Your task to perform on an android device: What's on my calendar tomorrow? Image 0: 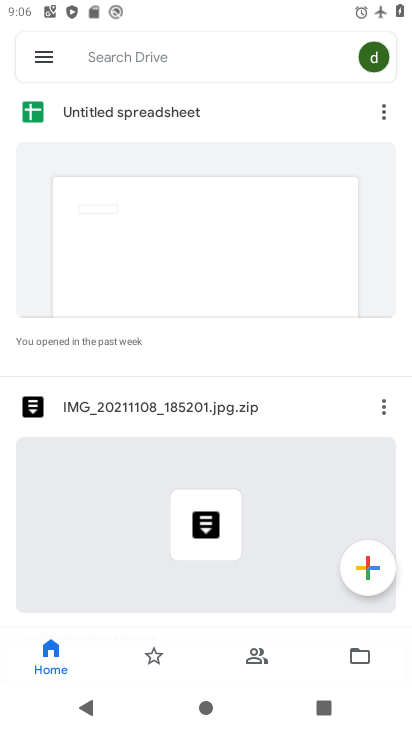
Step 0: press home button
Your task to perform on an android device: What's on my calendar tomorrow? Image 1: 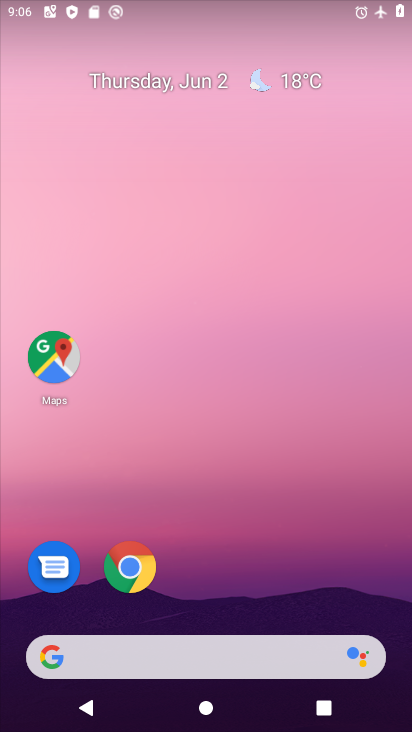
Step 1: drag from (212, 571) to (243, 6)
Your task to perform on an android device: What's on my calendar tomorrow? Image 2: 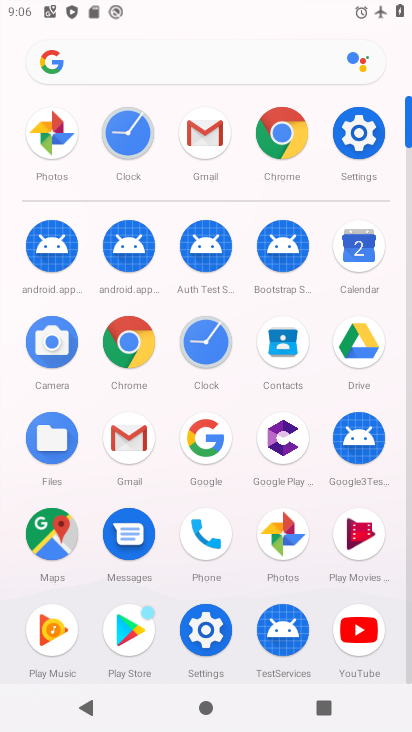
Step 2: click (355, 273)
Your task to perform on an android device: What's on my calendar tomorrow? Image 3: 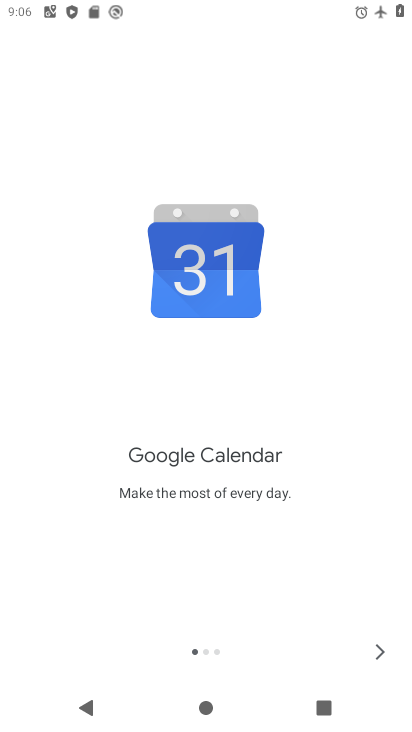
Step 3: click (374, 649)
Your task to perform on an android device: What's on my calendar tomorrow? Image 4: 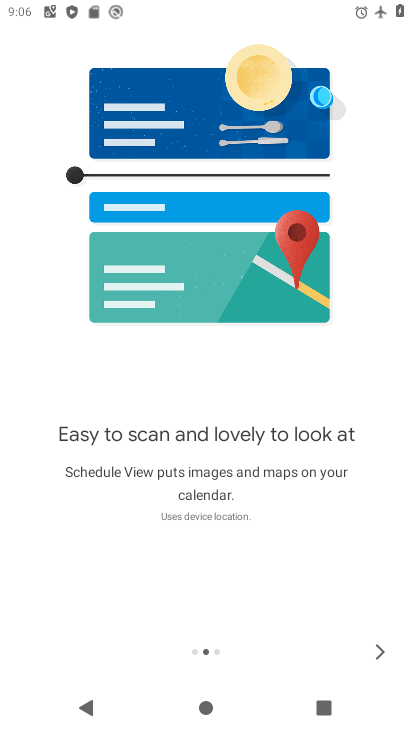
Step 4: click (373, 647)
Your task to perform on an android device: What's on my calendar tomorrow? Image 5: 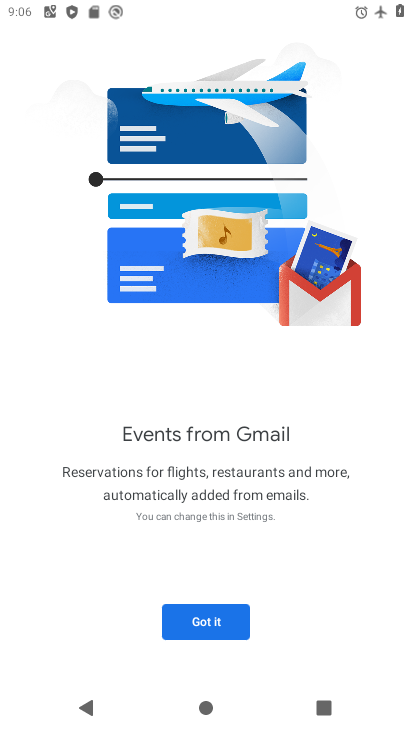
Step 5: click (198, 628)
Your task to perform on an android device: What's on my calendar tomorrow? Image 6: 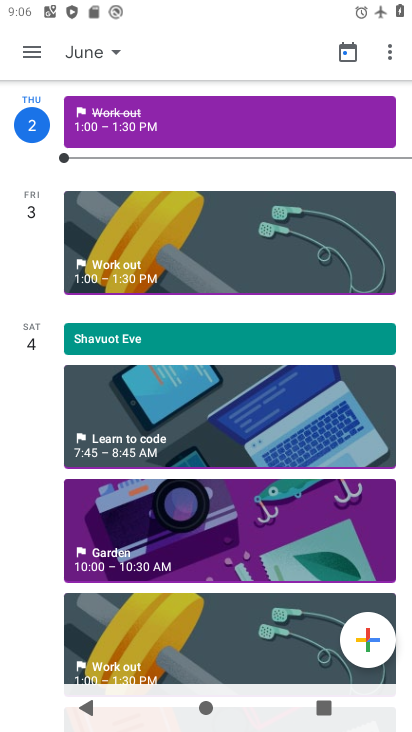
Step 6: click (32, 52)
Your task to perform on an android device: What's on my calendar tomorrow? Image 7: 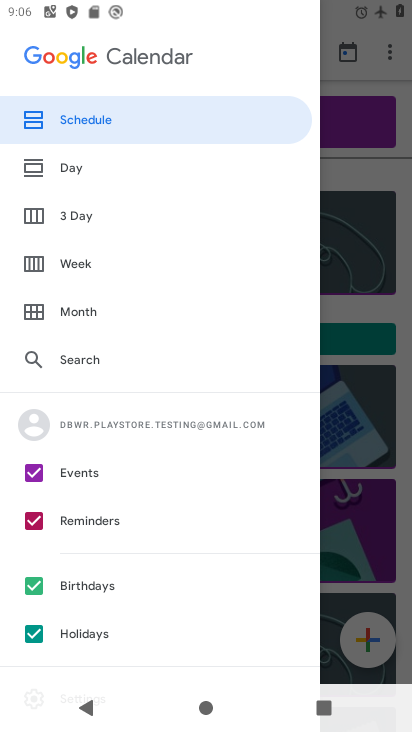
Step 7: click (93, 226)
Your task to perform on an android device: What's on my calendar tomorrow? Image 8: 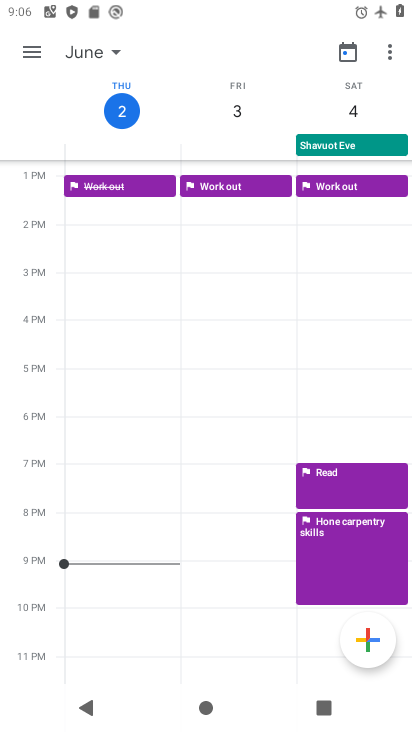
Step 8: task complete